Your task to perform on an android device: open app "Duolingo: language lessons" (install if not already installed) Image 0: 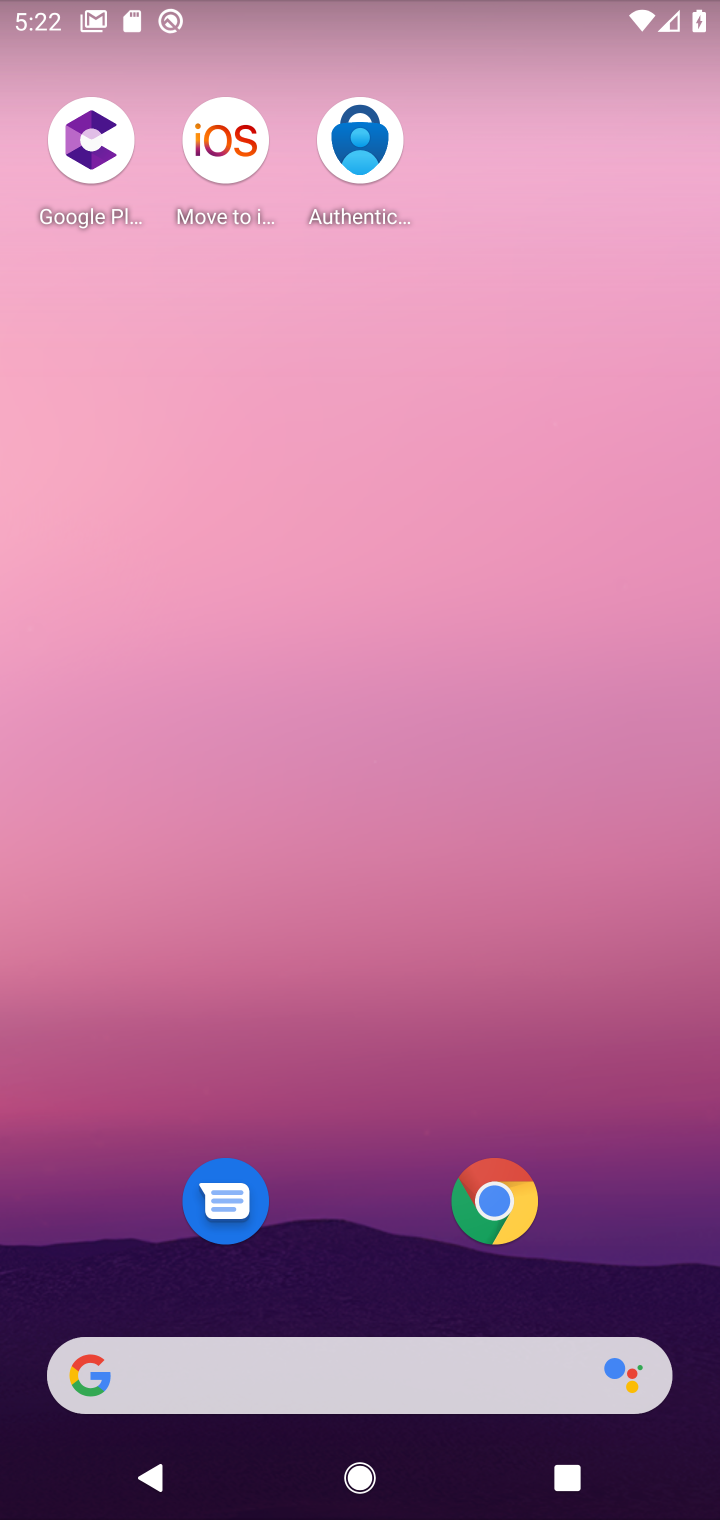
Step 0: drag from (333, 1303) to (324, 536)
Your task to perform on an android device: open app "Duolingo: language lessons" (install if not already installed) Image 1: 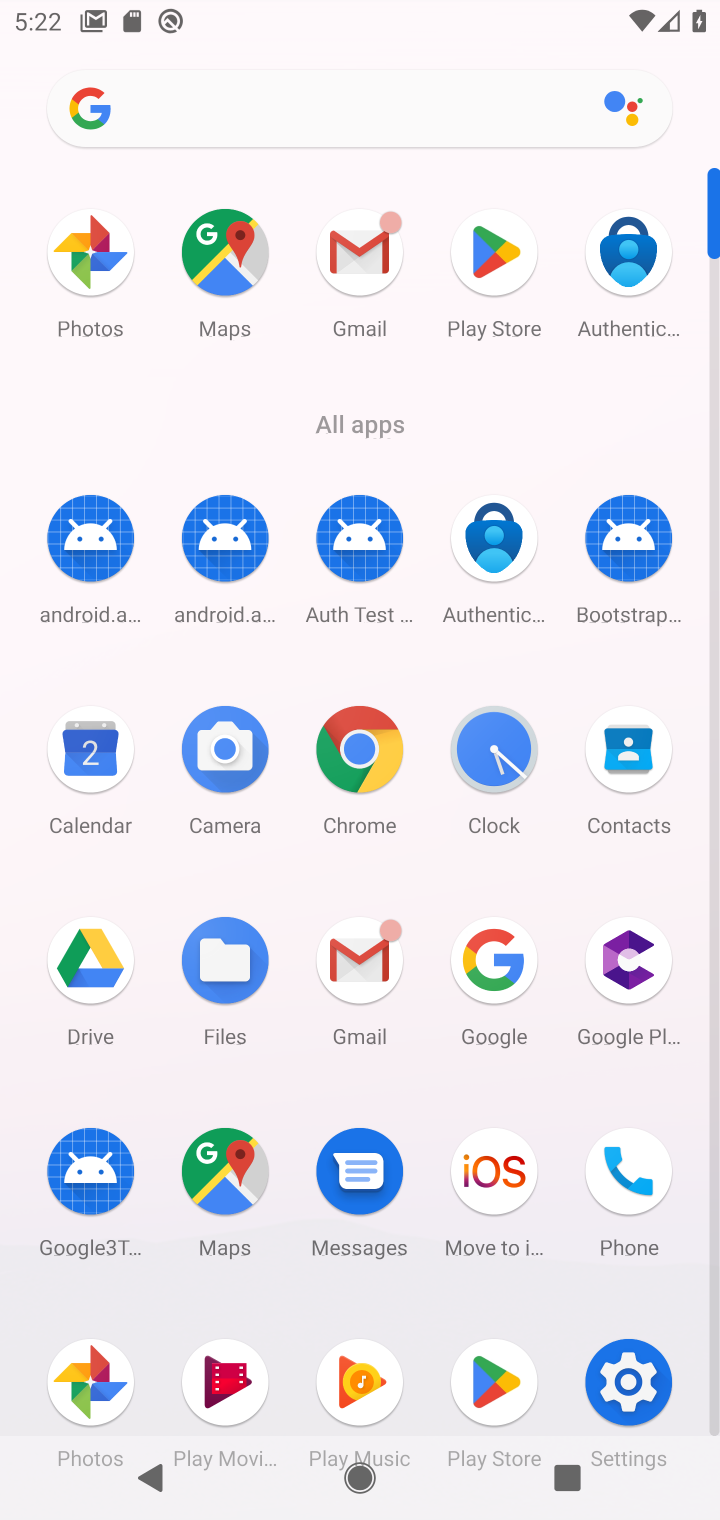
Step 1: click (497, 267)
Your task to perform on an android device: open app "Duolingo: language lessons" (install if not already installed) Image 2: 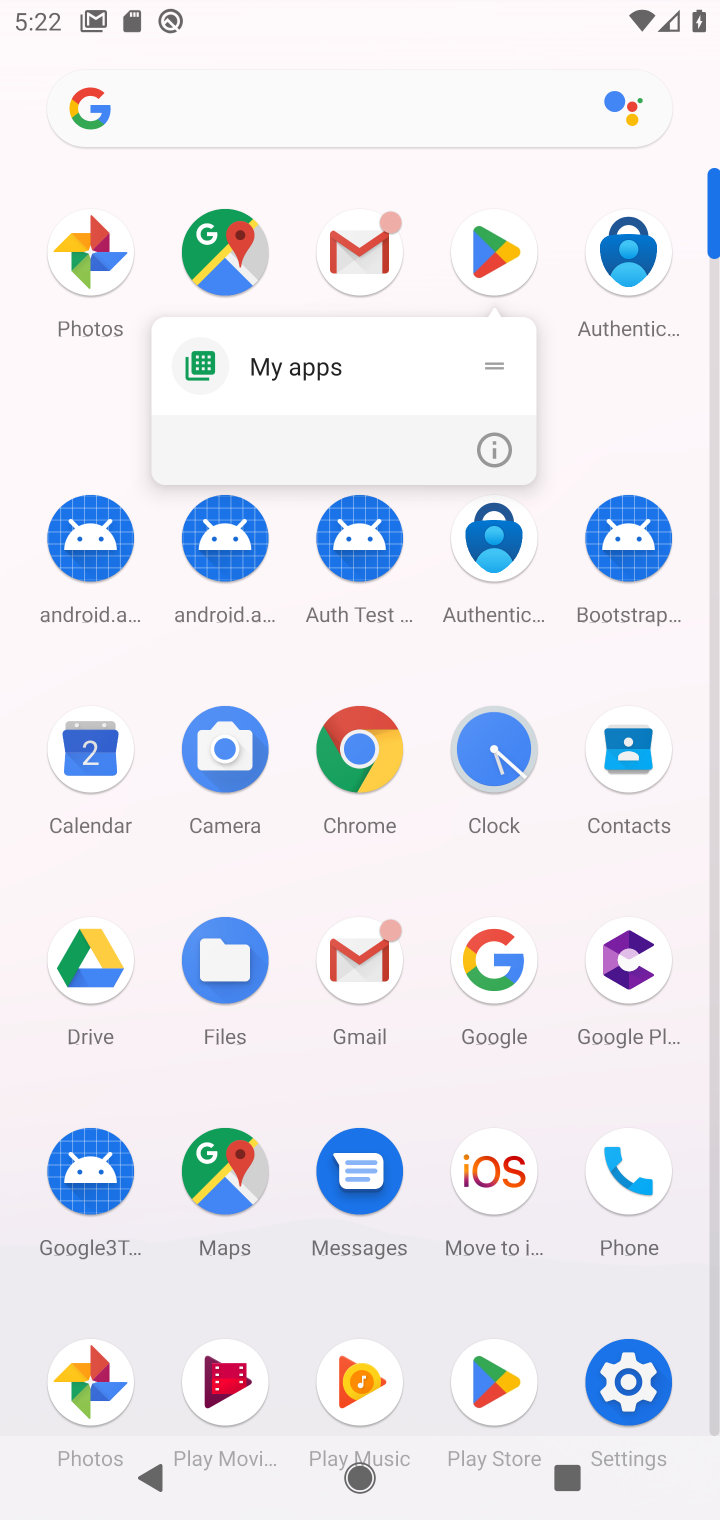
Step 2: click (491, 239)
Your task to perform on an android device: open app "Duolingo: language lessons" (install if not already installed) Image 3: 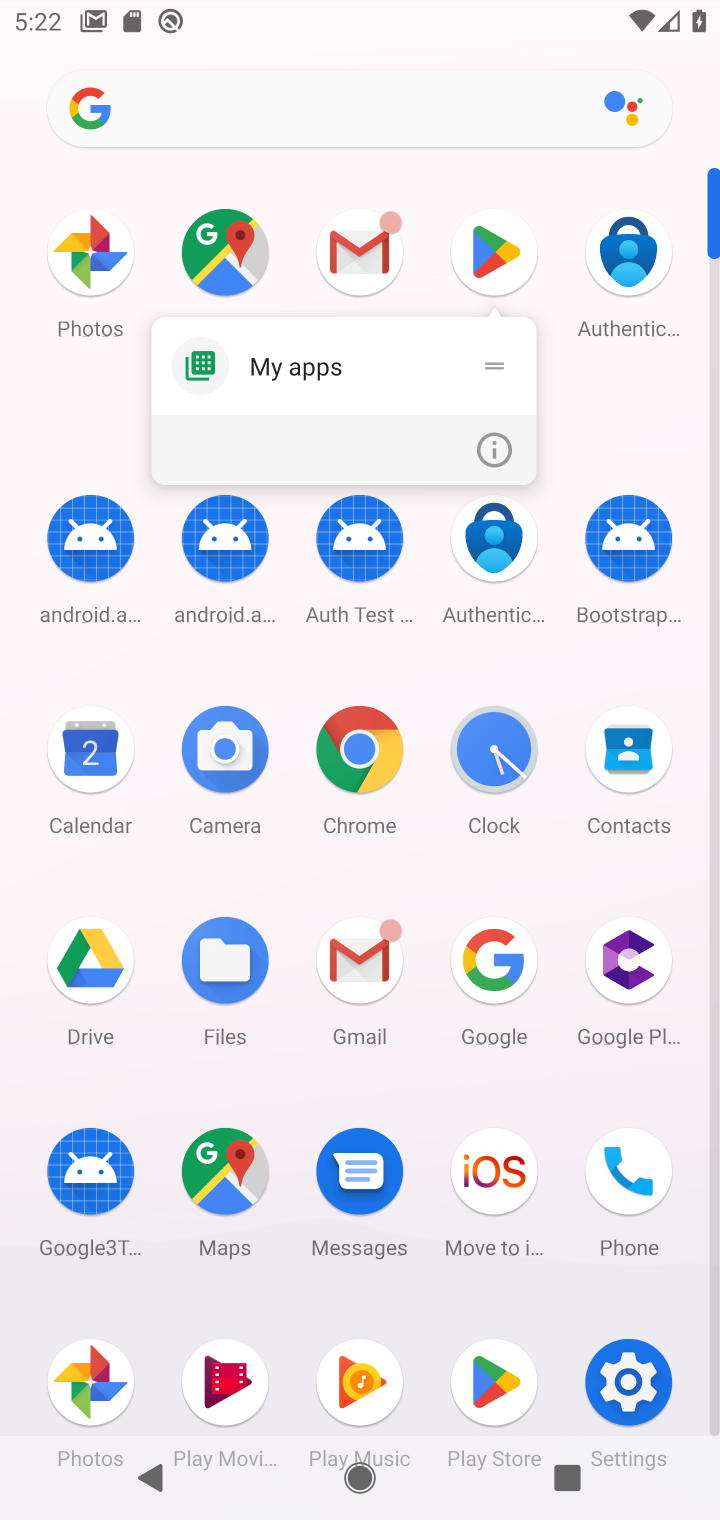
Step 3: click (489, 241)
Your task to perform on an android device: open app "Duolingo: language lessons" (install if not already installed) Image 4: 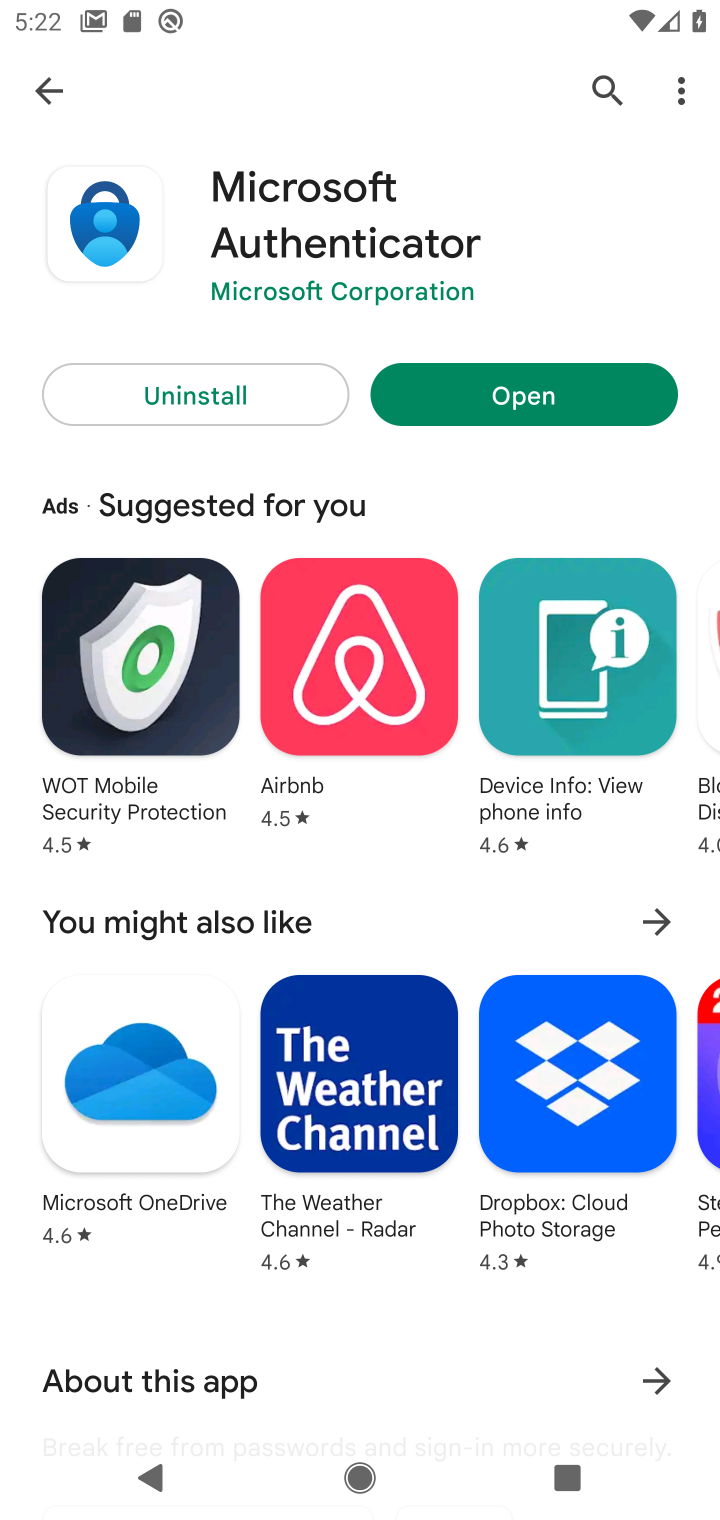
Step 4: click (611, 87)
Your task to perform on an android device: open app "Duolingo: language lessons" (install if not already installed) Image 5: 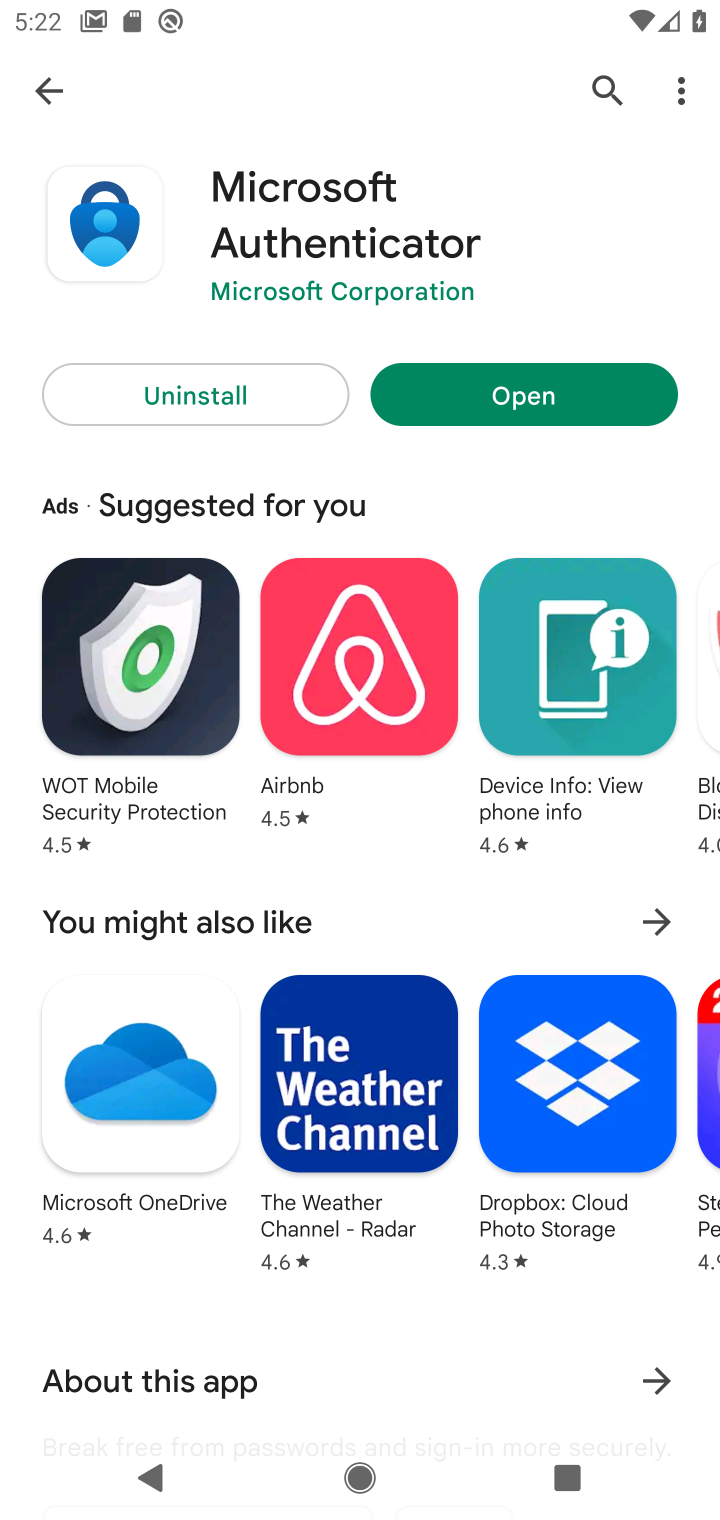
Step 5: click (600, 74)
Your task to perform on an android device: open app "Duolingo: language lessons" (install if not already installed) Image 6: 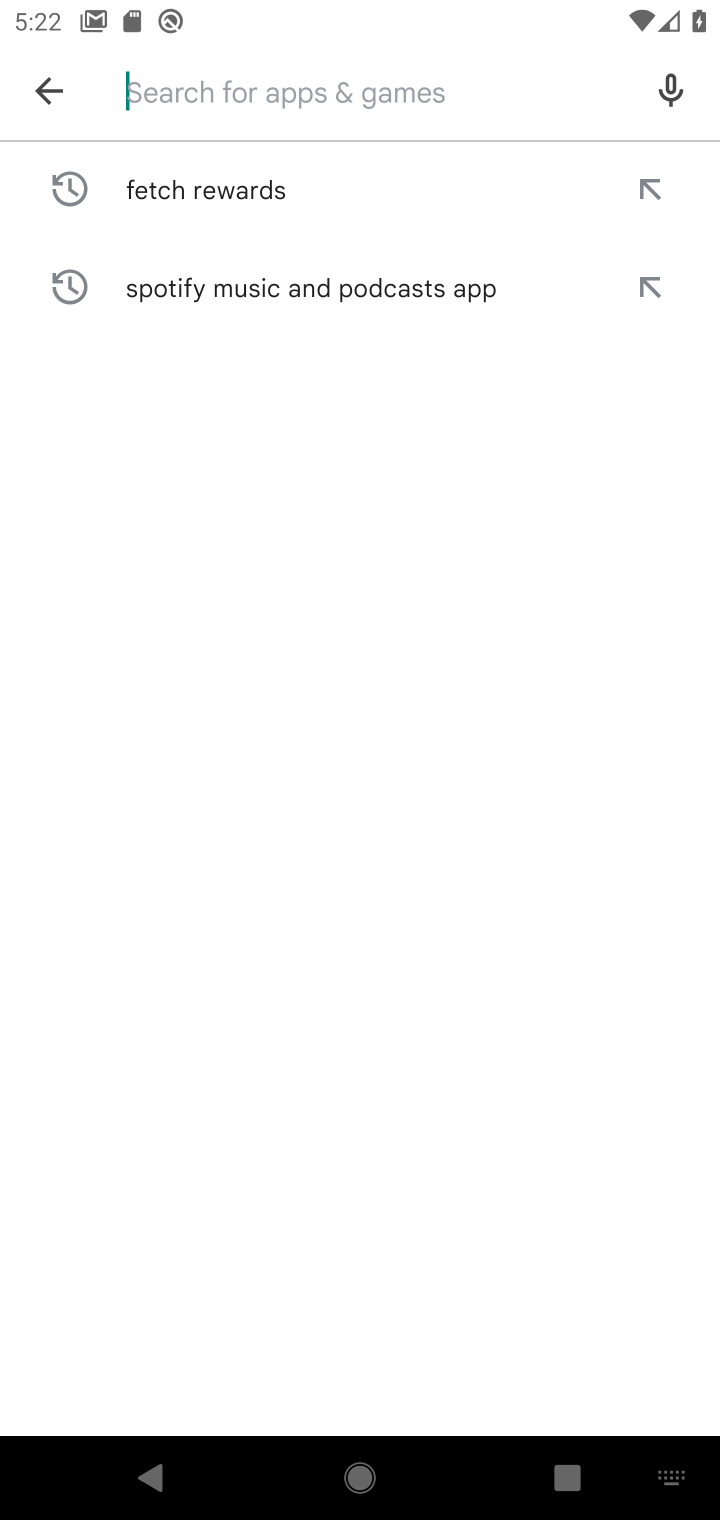
Step 6: type "Duolingo: language lessons""
Your task to perform on an android device: open app "Duolingo: language lessons" (install if not already installed) Image 7: 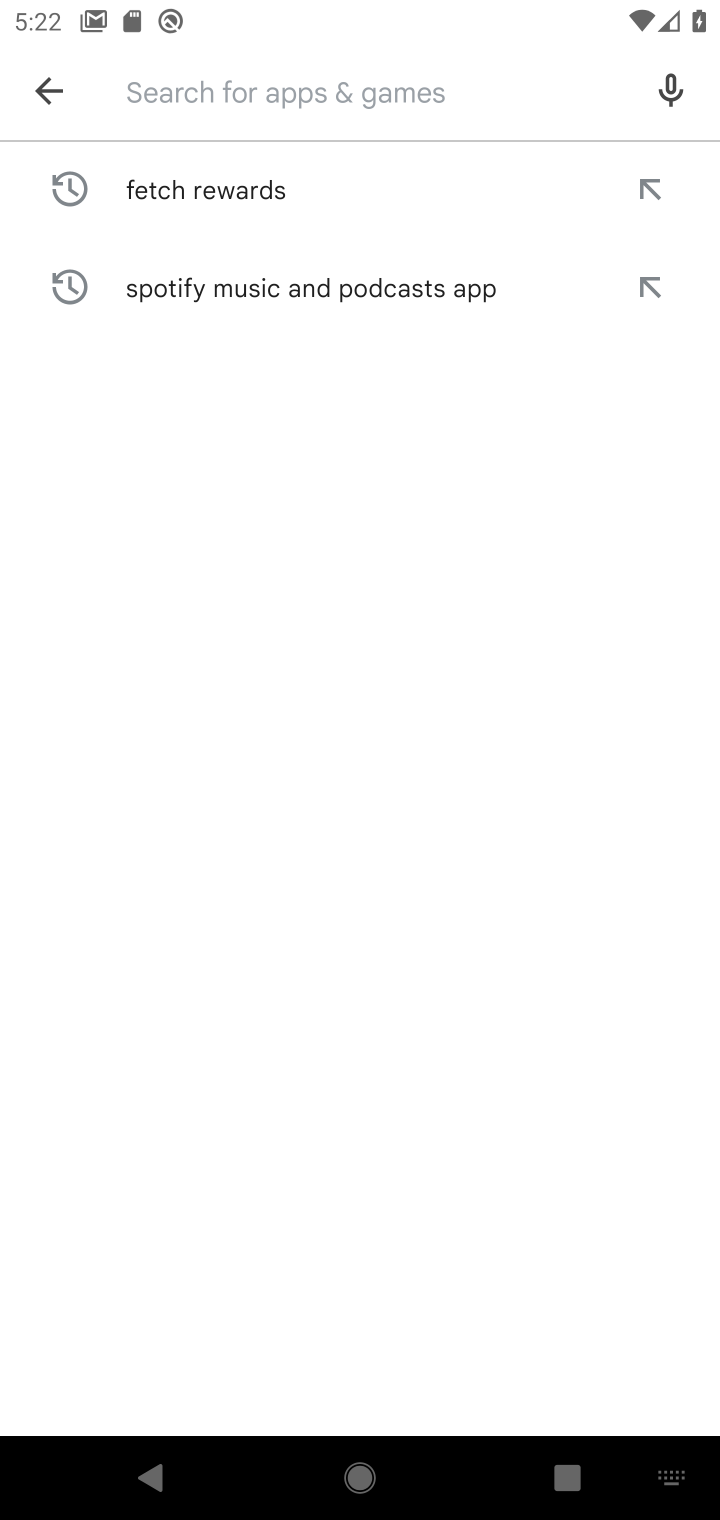
Step 7: type ""
Your task to perform on an android device: open app "Duolingo: language lessons" (install if not already installed) Image 8: 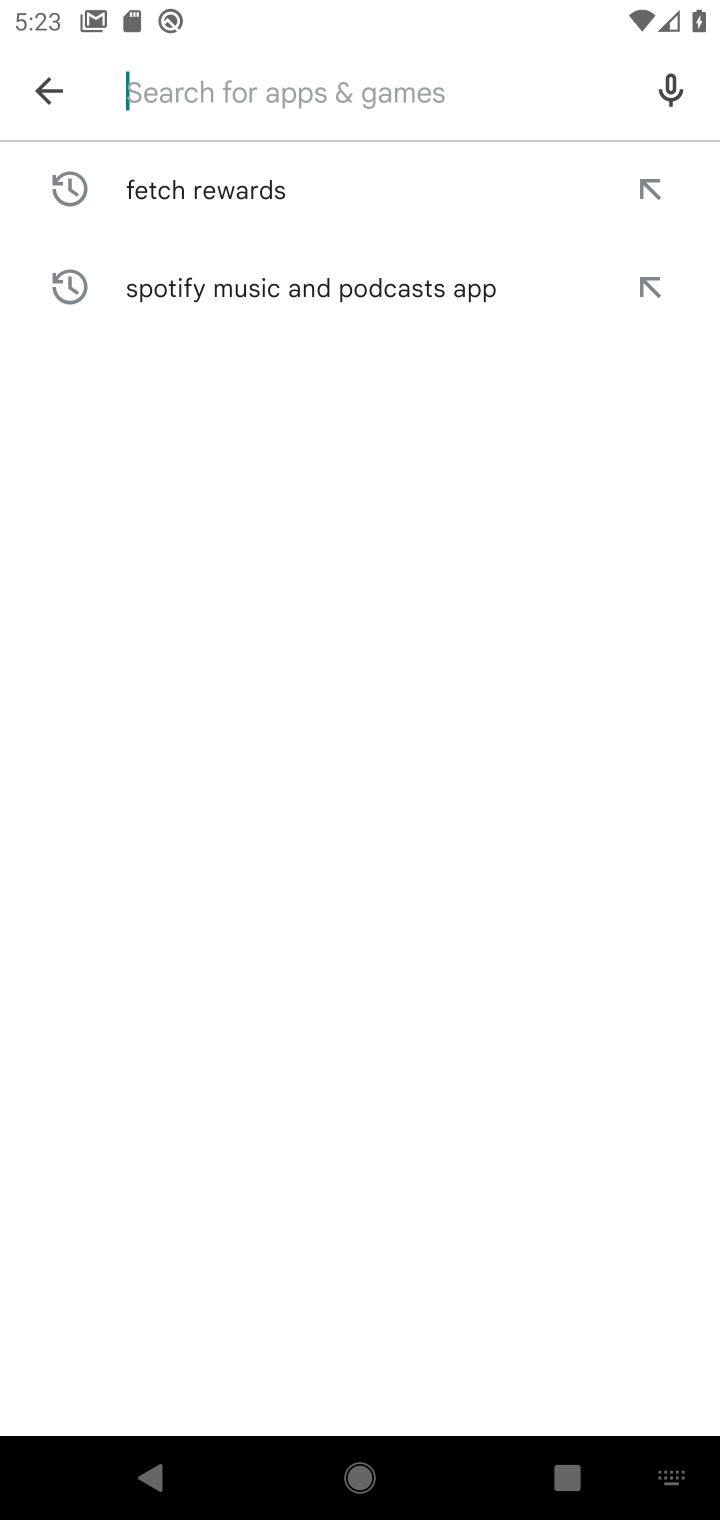
Step 8: type "Duolingo: language lessonss"
Your task to perform on an android device: open app "Duolingo: language lessons" (install if not already installed) Image 9: 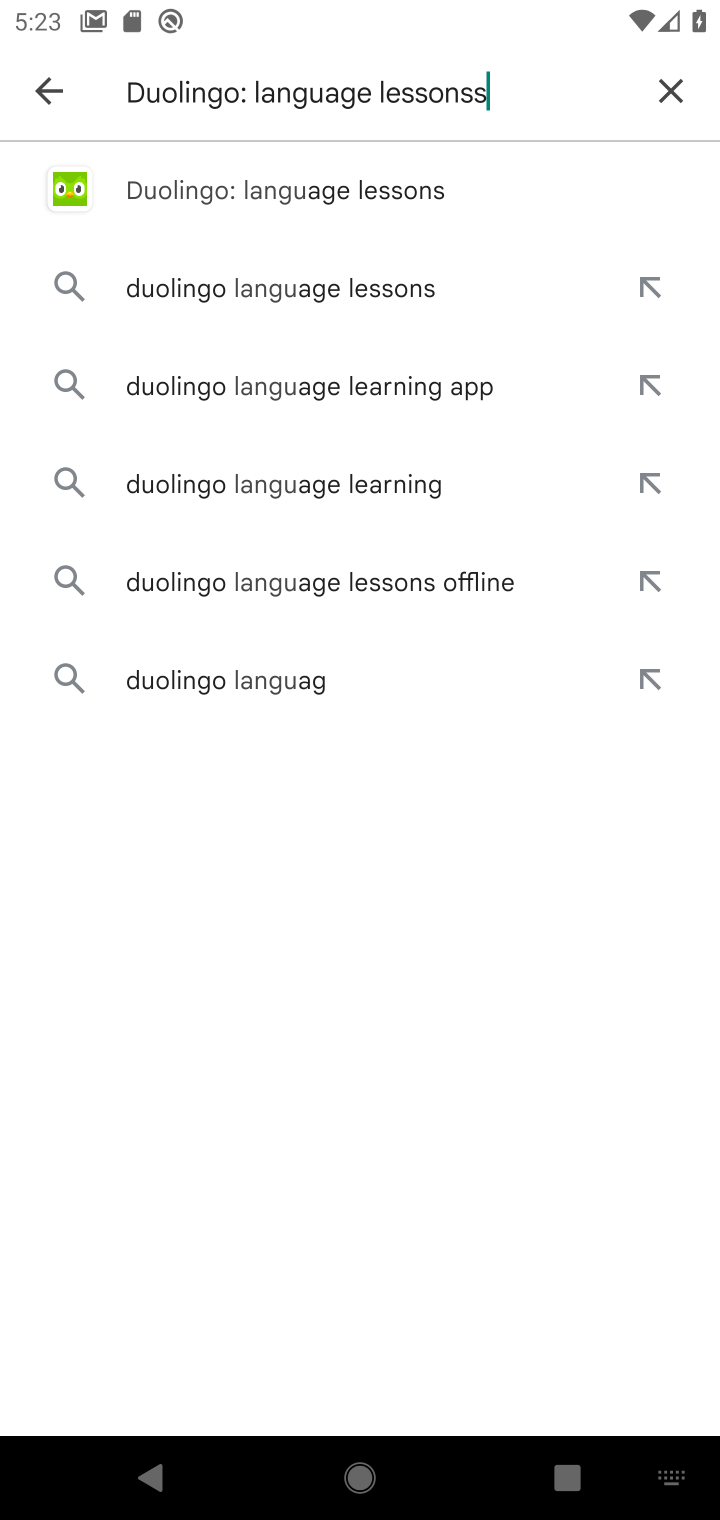
Step 9: type ""
Your task to perform on an android device: open app "Duolingo: language lessons" (install if not already installed) Image 10: 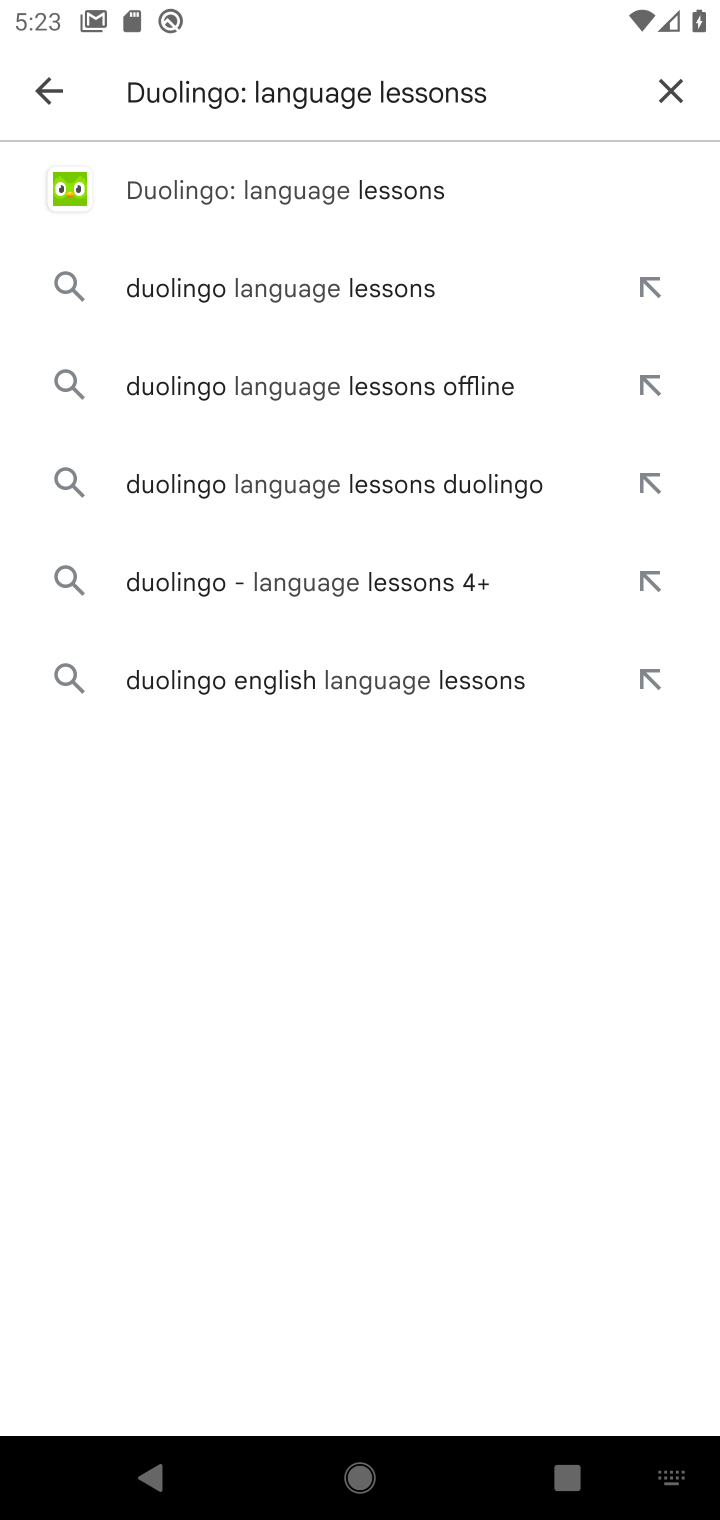
Step 10: click (461, 177)
Your task to perform on an android device: open app "Duolingo: language lessons" (install if not already installed) Image 11: 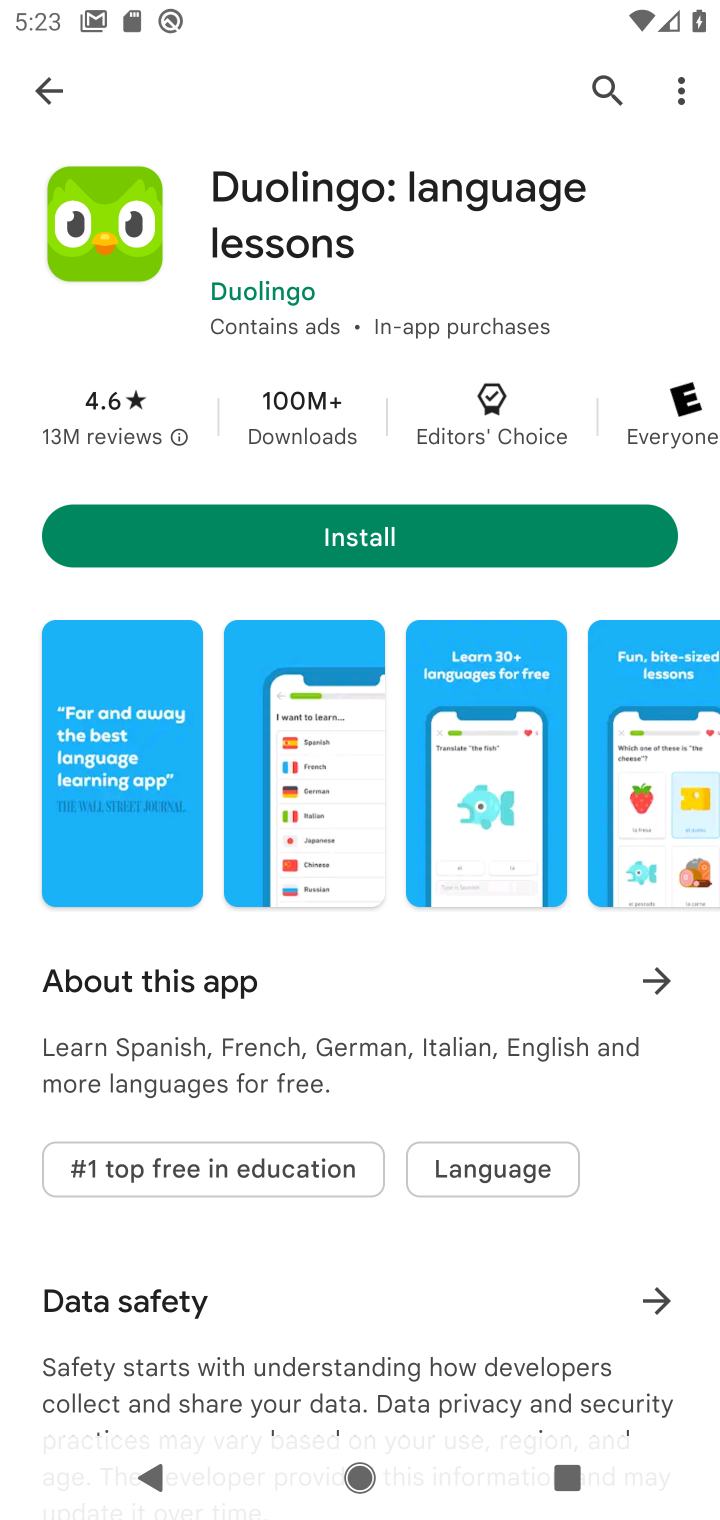
Step 11: click (478, 540)
Your task to perform on an android device: open app "Duolingo: language lessons" (install if not already installed) Image 12: 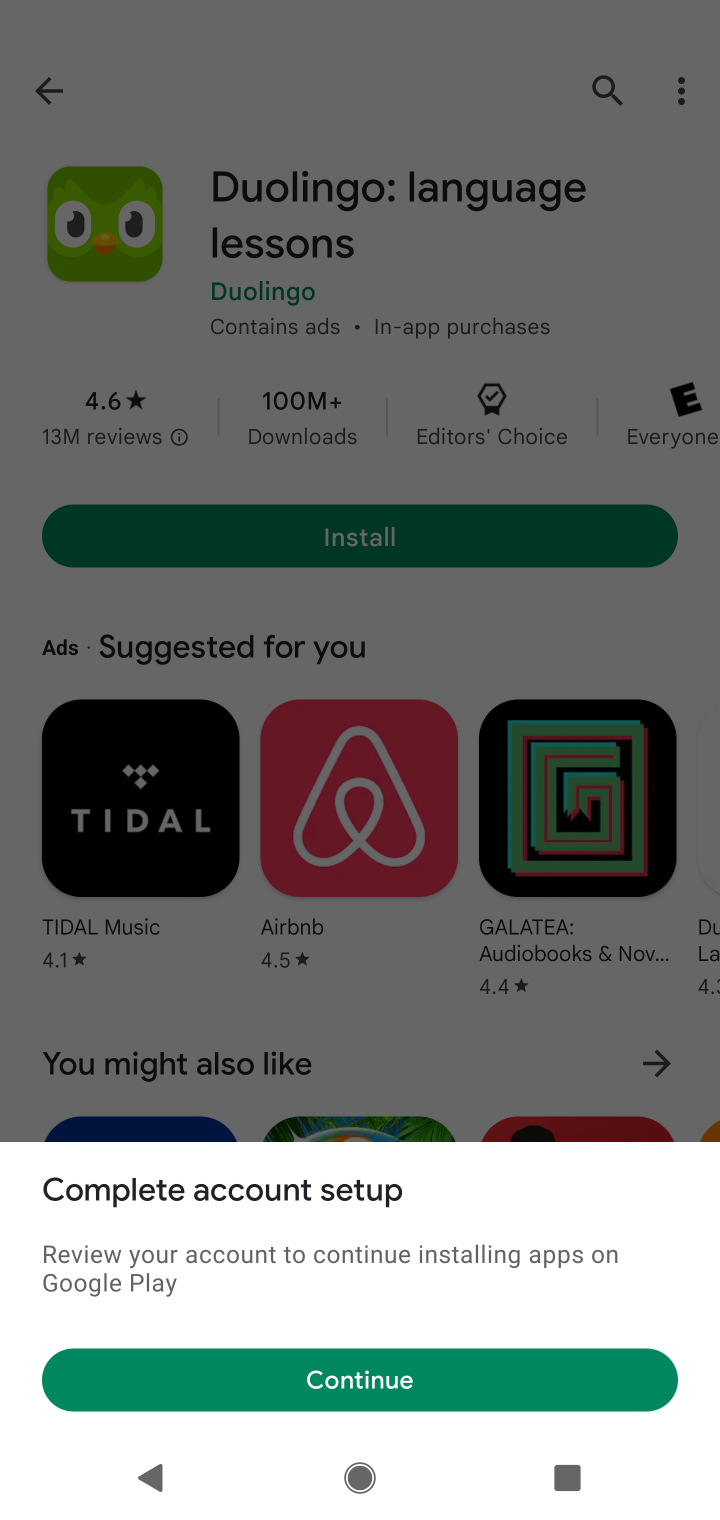
Step 12: click (468, 1386)
Your task to perform on an android device: open app "Duolingo: language lessons" (install if not already installed) Image 13: 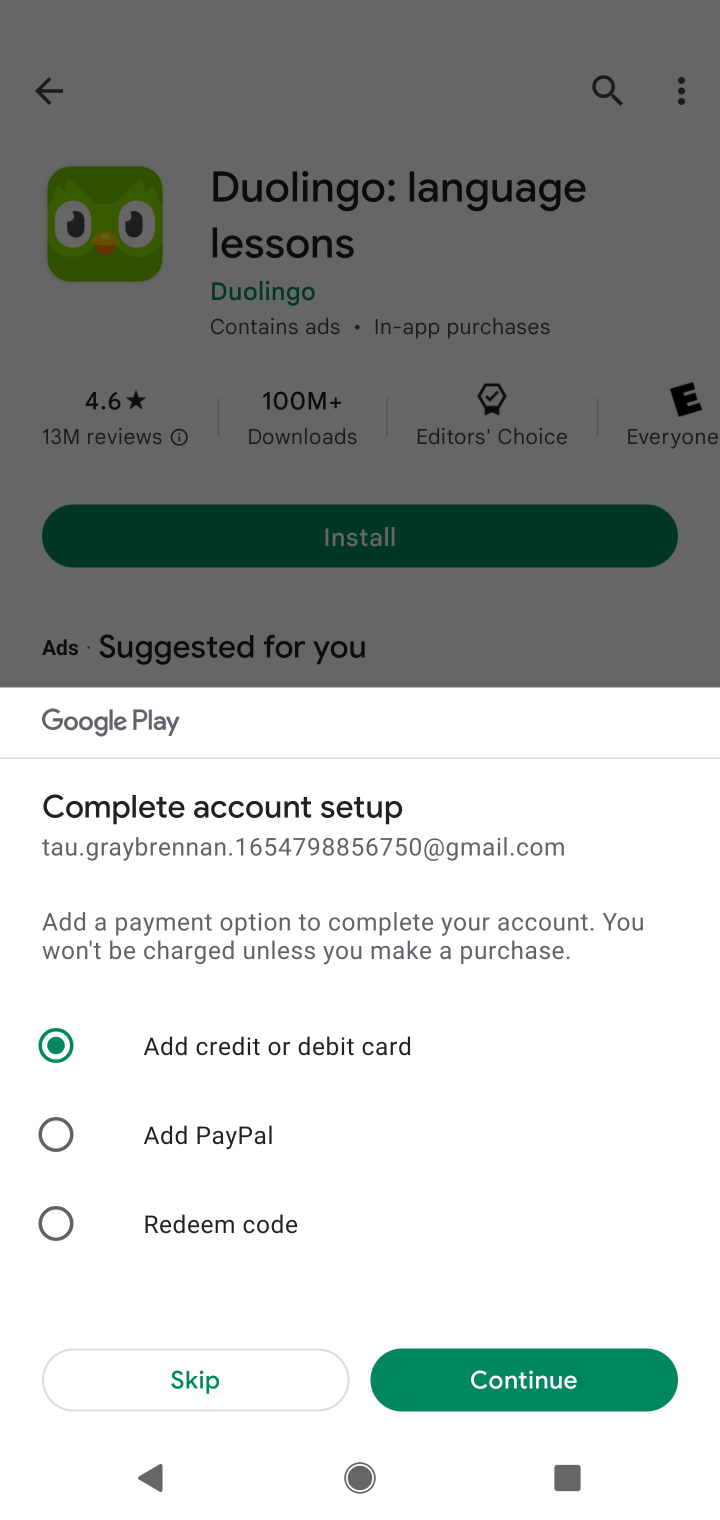
Step 13: click (117, 1379)
Your task to perform on an android device: open app "Duolingo: language lessons" (install if not already installed) Image 14: 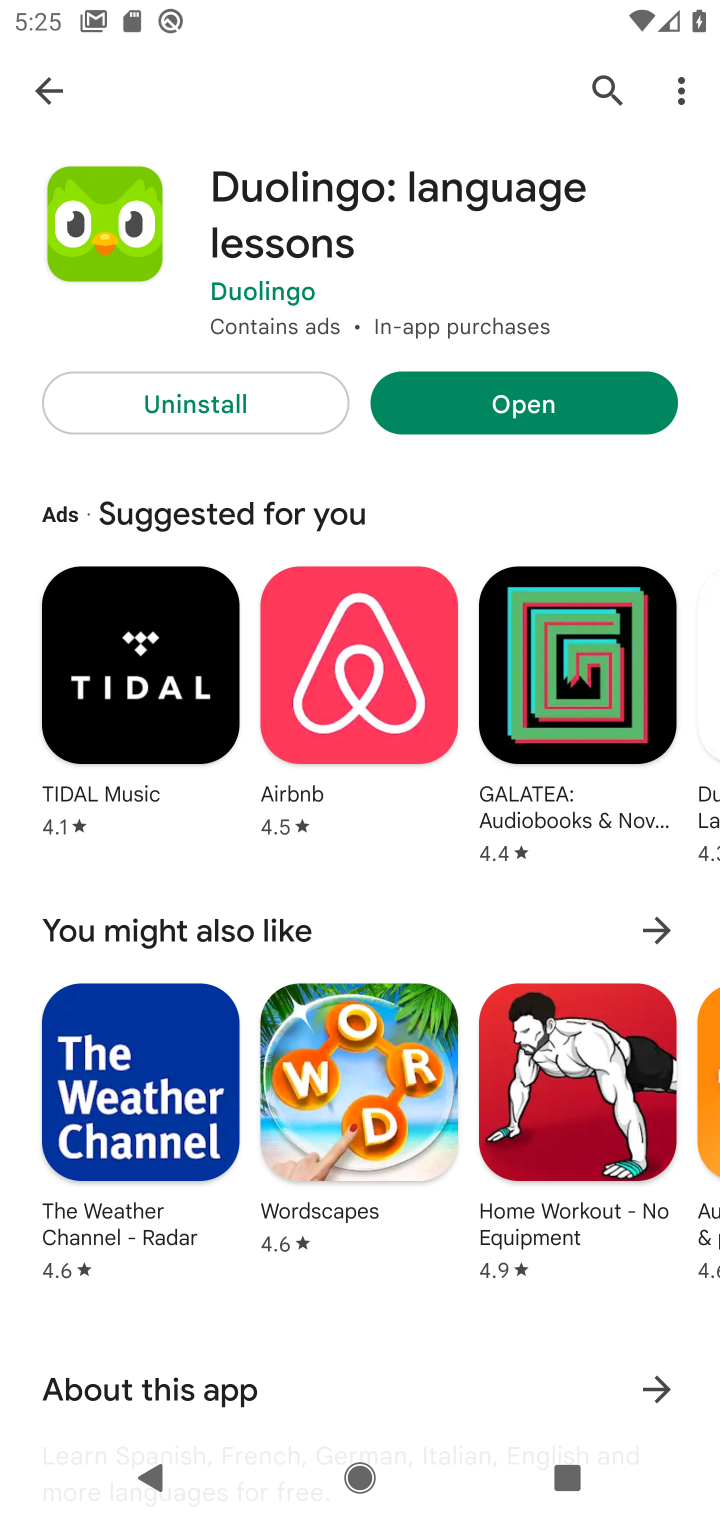
Step 14: click (472, 412)
Your task to perform on an android device: open app "Duolingo: language lessons" (install if not already installed) Image 15: 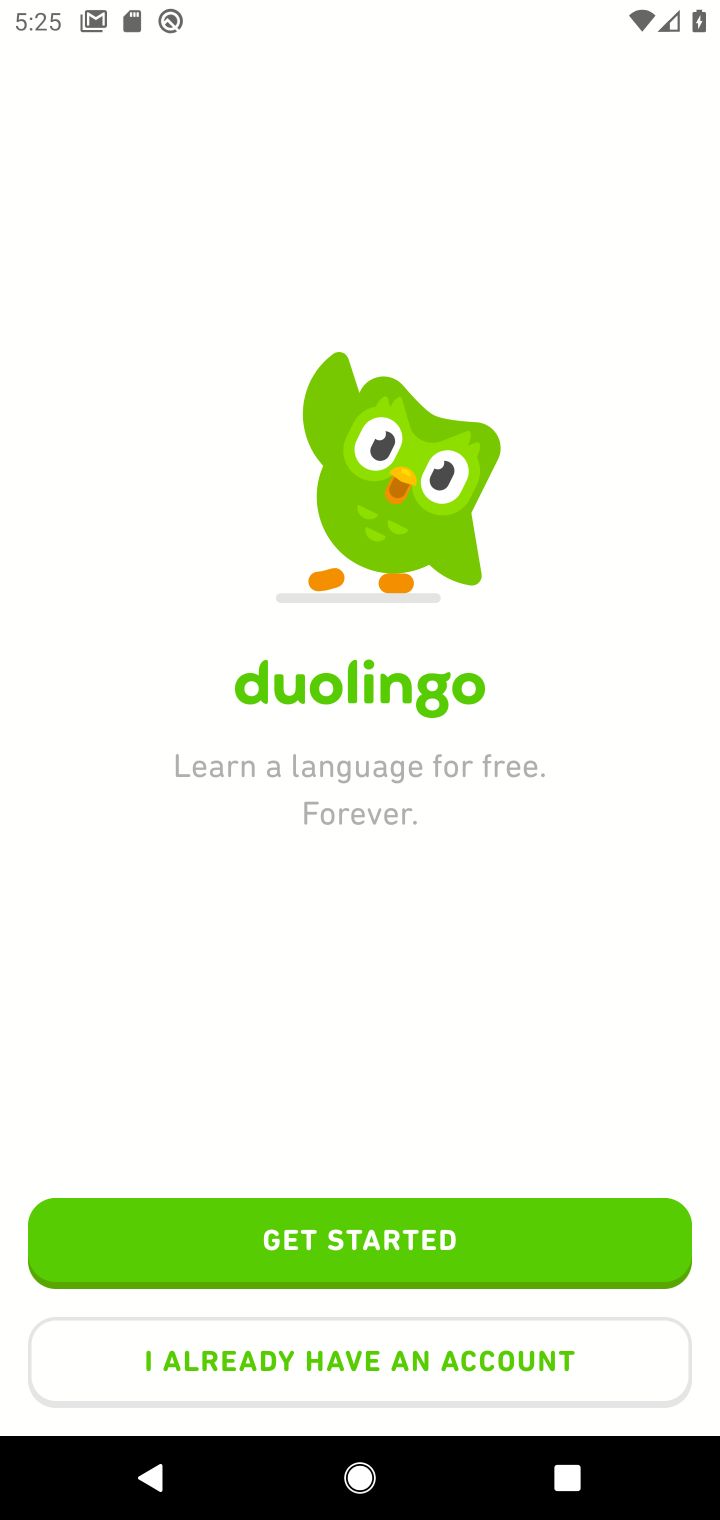
Step 15: task complete